Your task to perform on an android device: Go to Wikipedia Image 0: 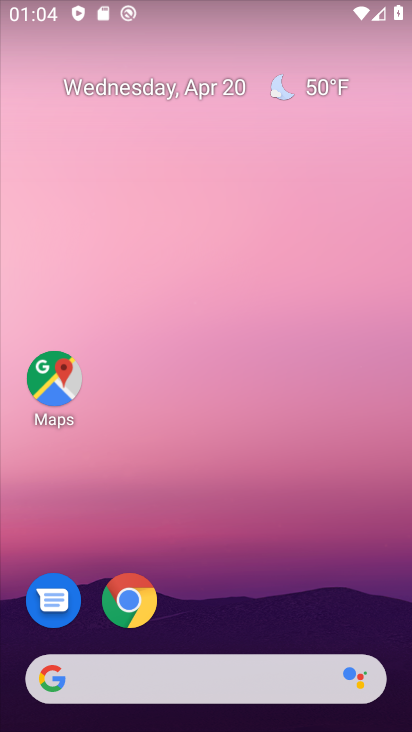
Step 0: click (136, 606)
Your task to perform on an android device: Go to Wikipedia Image 1: 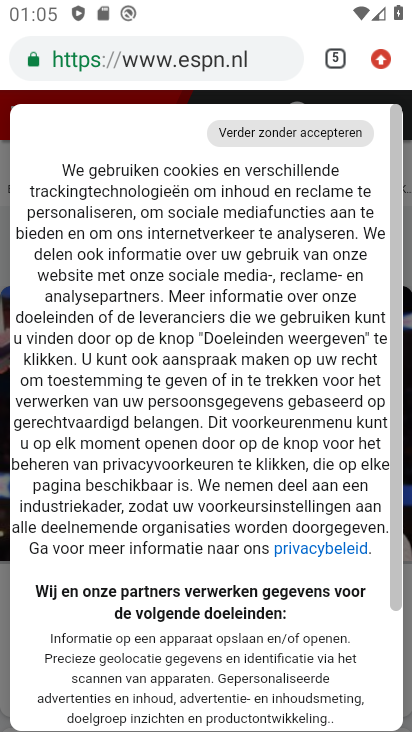
Step 1: click (343, 60)
Your task to perform on an android device: Go to Wikipedia Image 2: 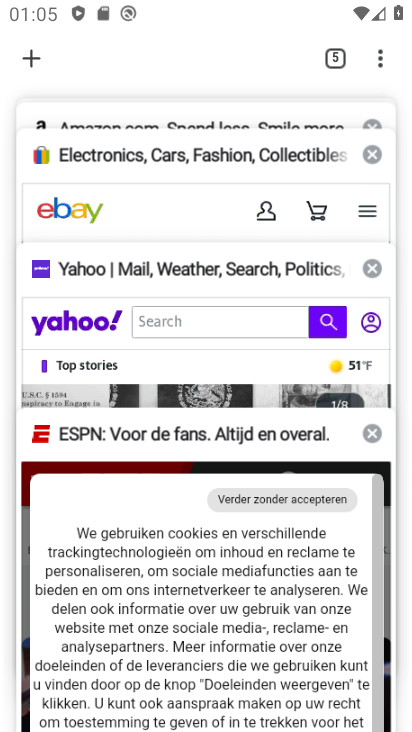
Step 2: click (28, 55)
Your task to perform on an android device: Go to Wikipedia Image 3: 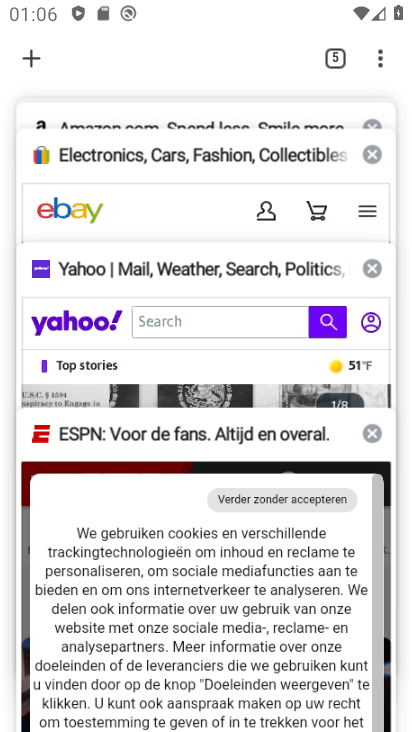
Step 3: click (36, 58)
Your task to perform on an android device: Go to Wikipedia Image 4: 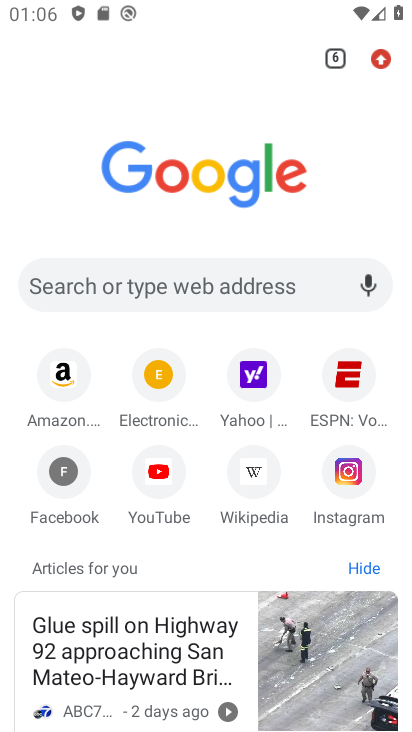
Step 4: click (265, 481)
Your task to perform on an android device: Go to Wikipedia Image 5: 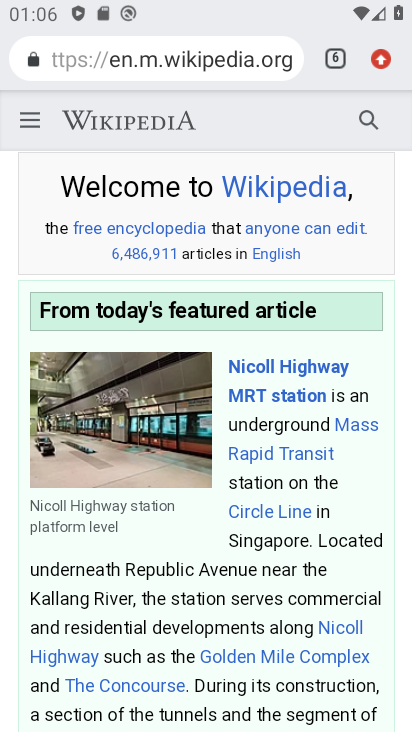
Step 5: task complete